Your task to perform on an android device: turn on the 24-hour format for clock Image 0: 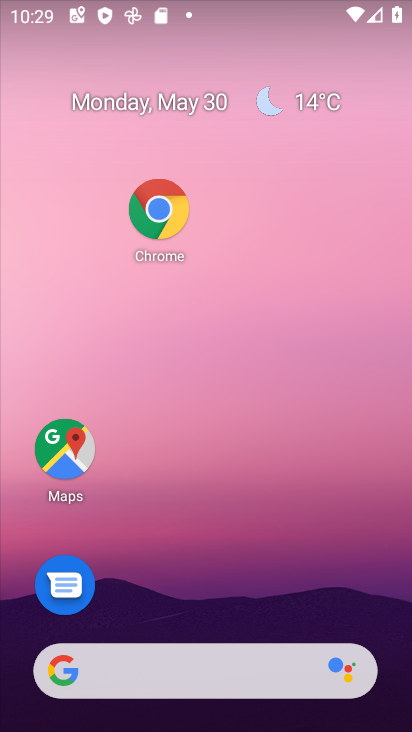
Step 0: drag from (171, 605) to (284, 74)
Your task to perform on an android device: turn on the 24-hour format for clock Image 1: 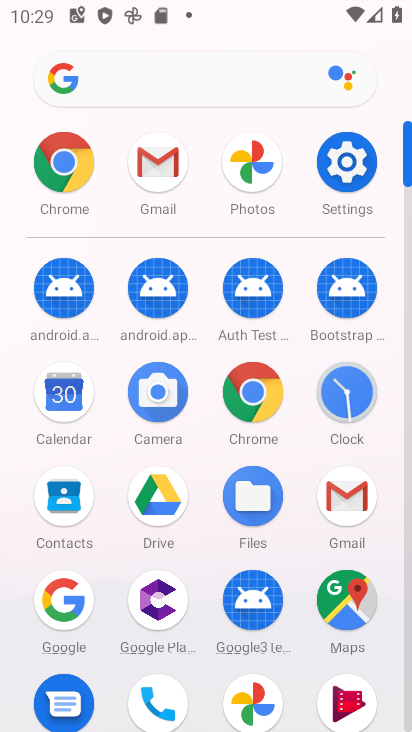
Step 1: click (342, 383)
Your task to perform on an android device: turn on the 24-hour format for clock Image 2: 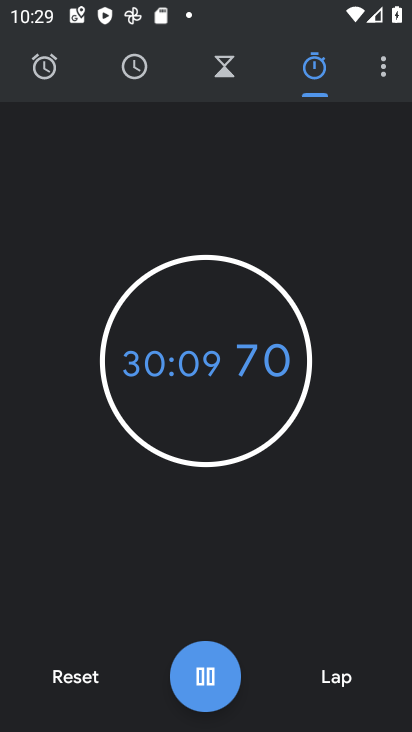
Step 2: click (89, 672)
Your task to perform on an android device: turn on the 24-hour format for clock Image 3: 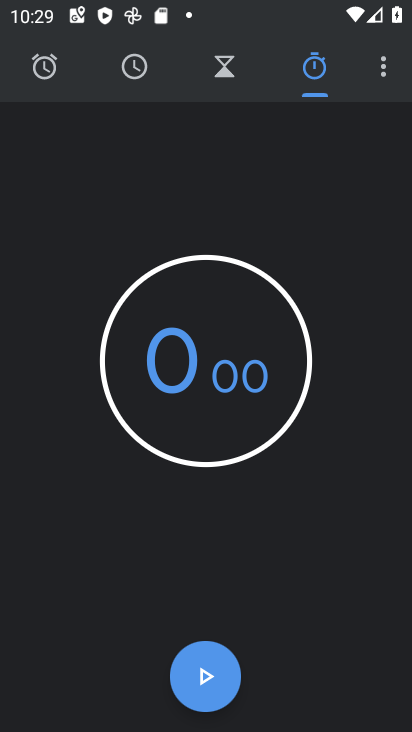
Step 3: click (377, 66)
Your task to perform on an android device: turn on the 24-hour format for clock Image 4: 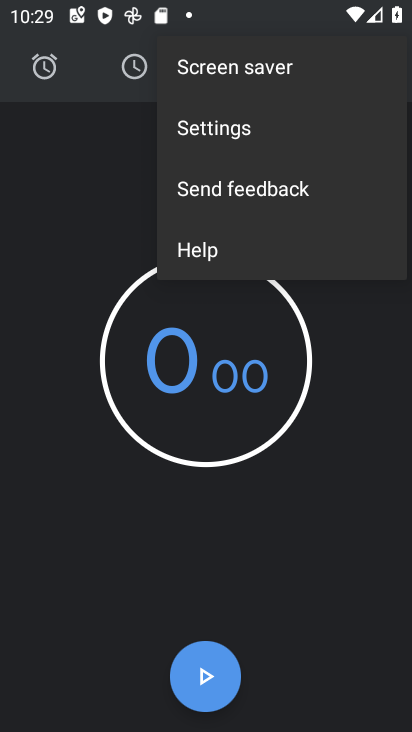
Step 4: click (235, 141)
Your task to perform on an android device: turn on the 24-hour format for clock Image 5: 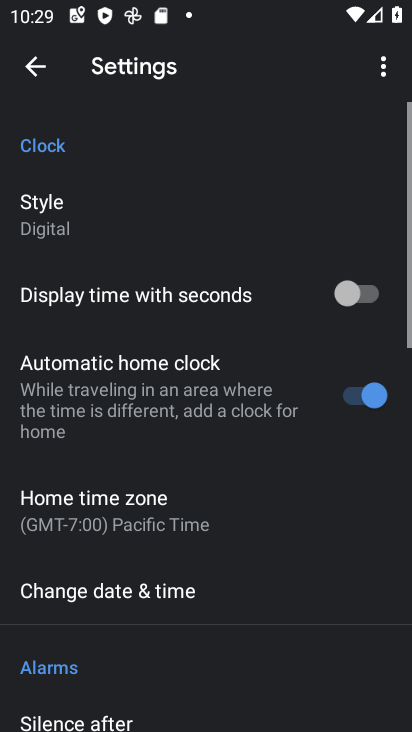
Step 5: drag from (171, 518) to (306, 184)
Your task to perform on an android device: turn on the 24-hour format for clock Image 6: 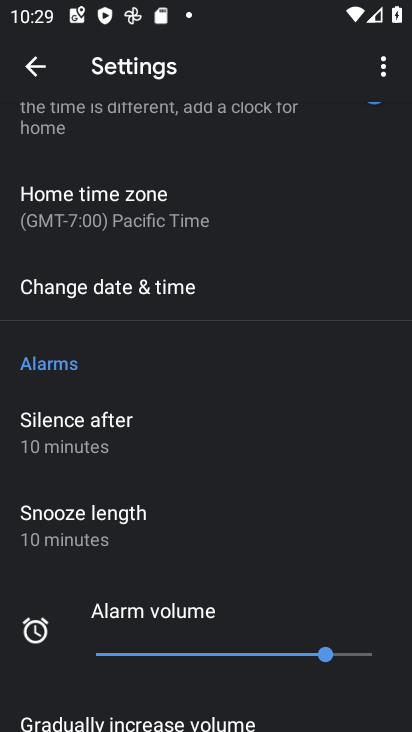
Step 6: click (170, 284)
Your task to perform on an android device: turn on the 24-hour format for clock Image 7: 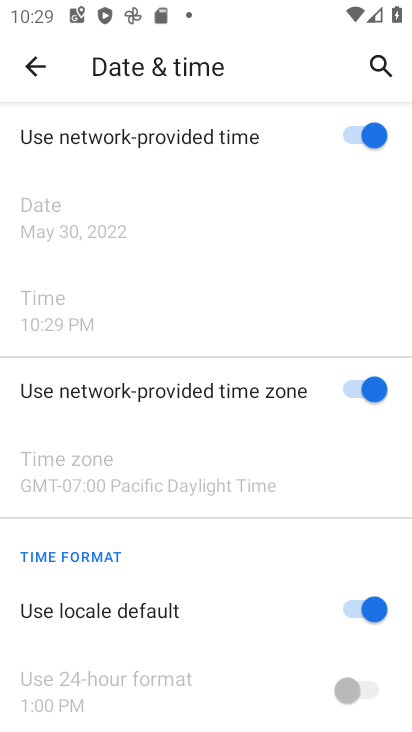
Step 7: drag from (200, 502) to (320, 153)
Your task to perform on an android device: turn on the 24-hour format for clock Image 8: 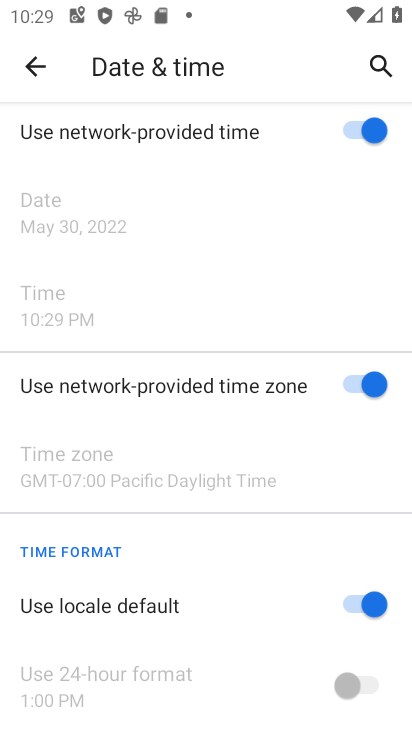
Step 8: click (359, 614)
Your task to perform on an android device: turn on the 24-hour format for clock Image 9: 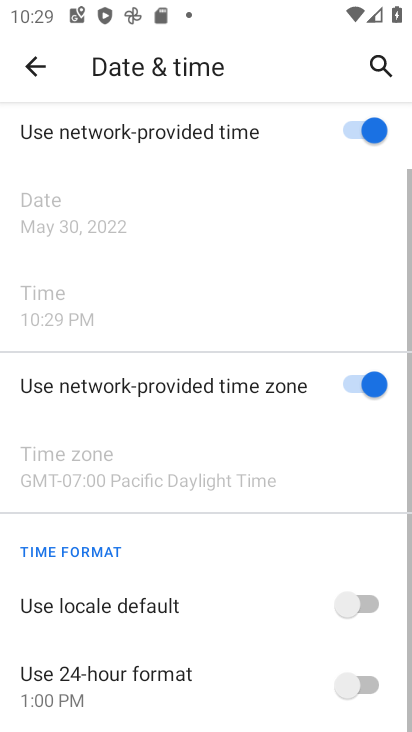
Step 9: click (353, 683)
Your task to perform on an android device: turn on the 24-hour format for clock Image 10: 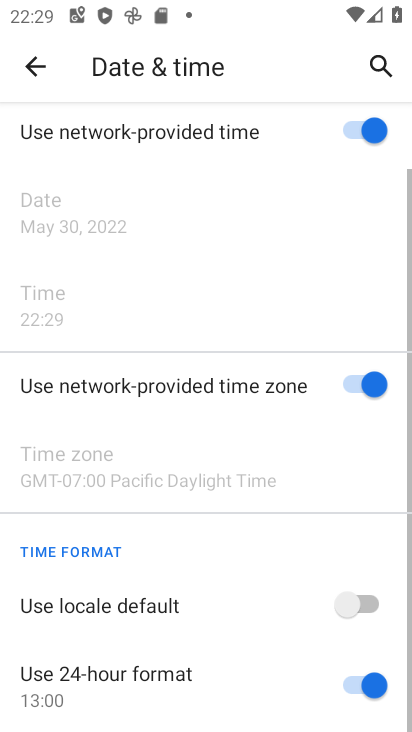
Step 10: task complete